Your task to perform on an android device: Open Wikipedia Image 0: 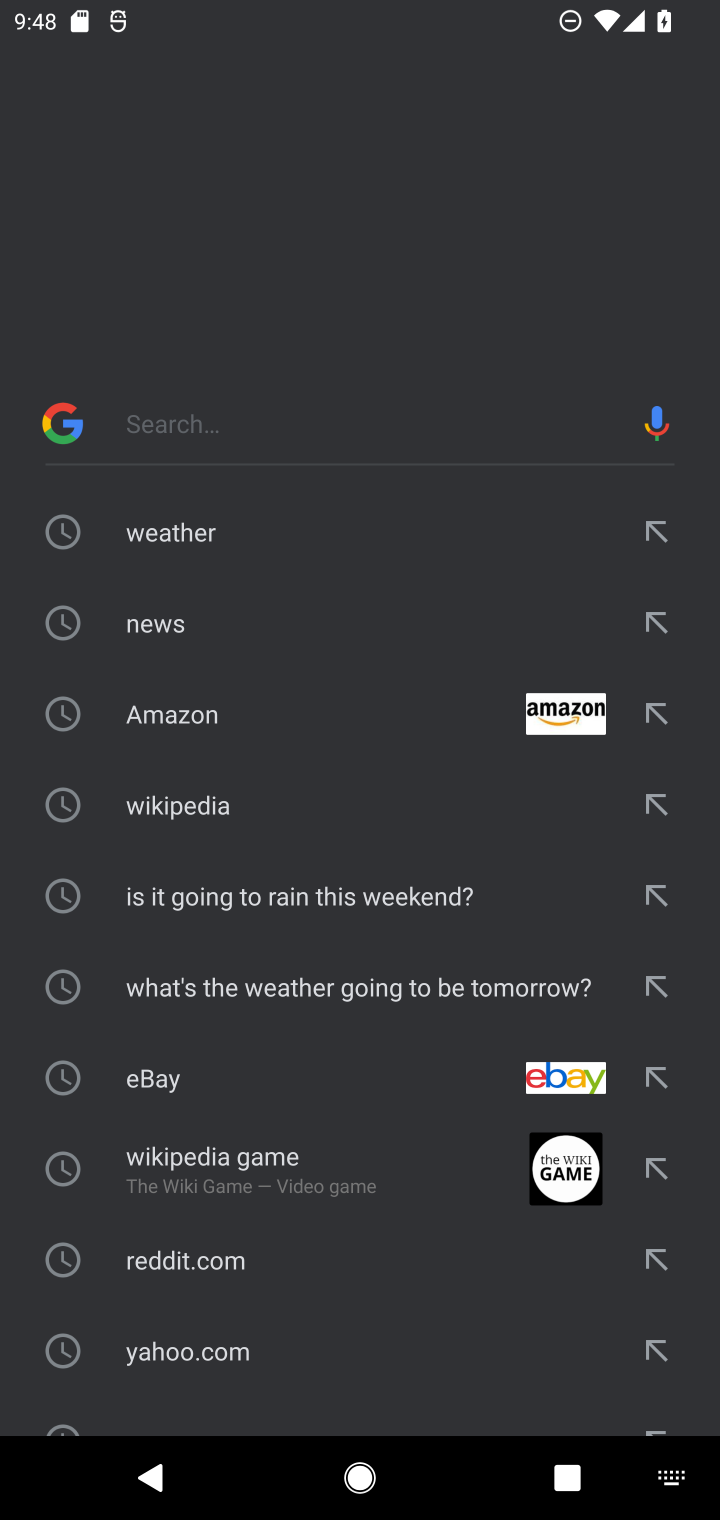
Step 0: click (325, 1171)
Your task to perform on an android device: Open Wikipedia Image 1: 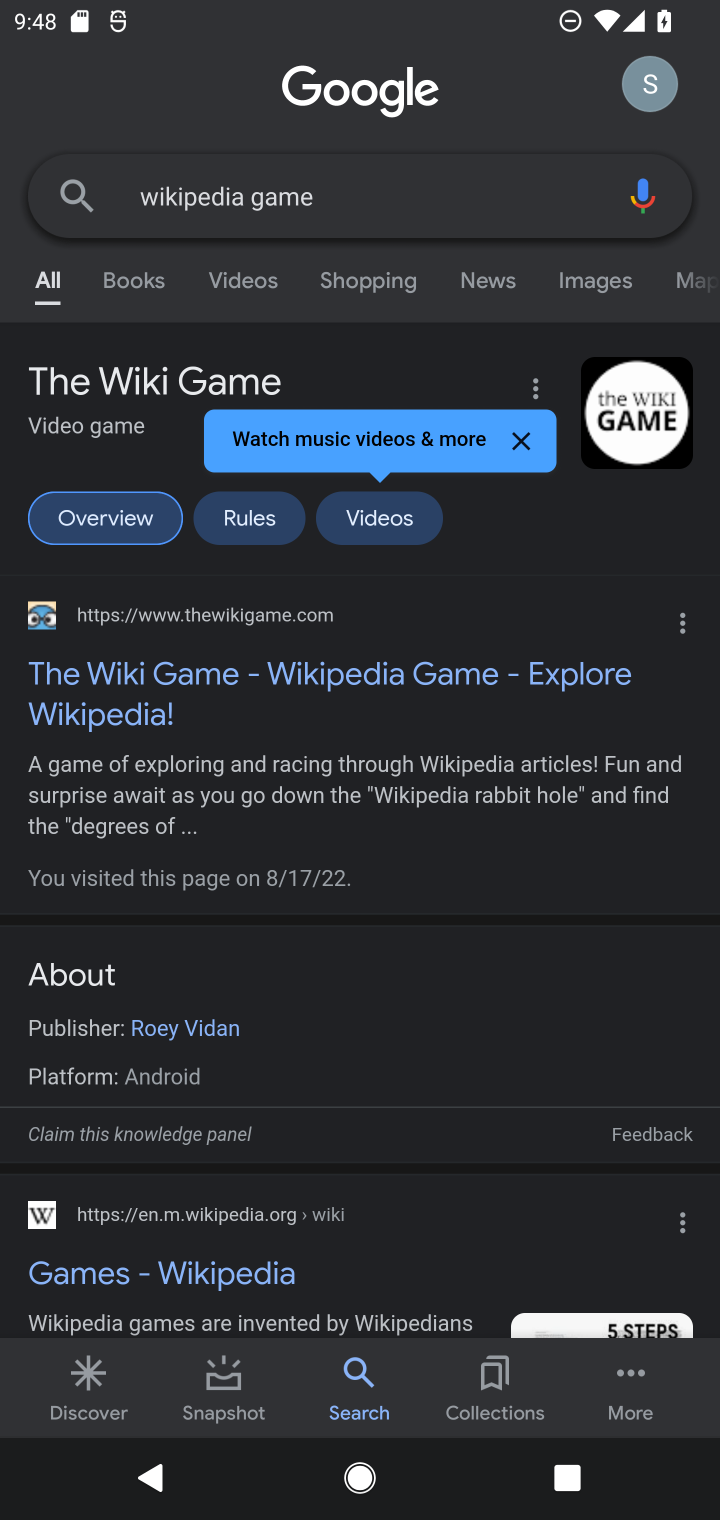
Step 1: click (218, 1300)
Your task to perform on an android device: Open Wikipedia Image 2: 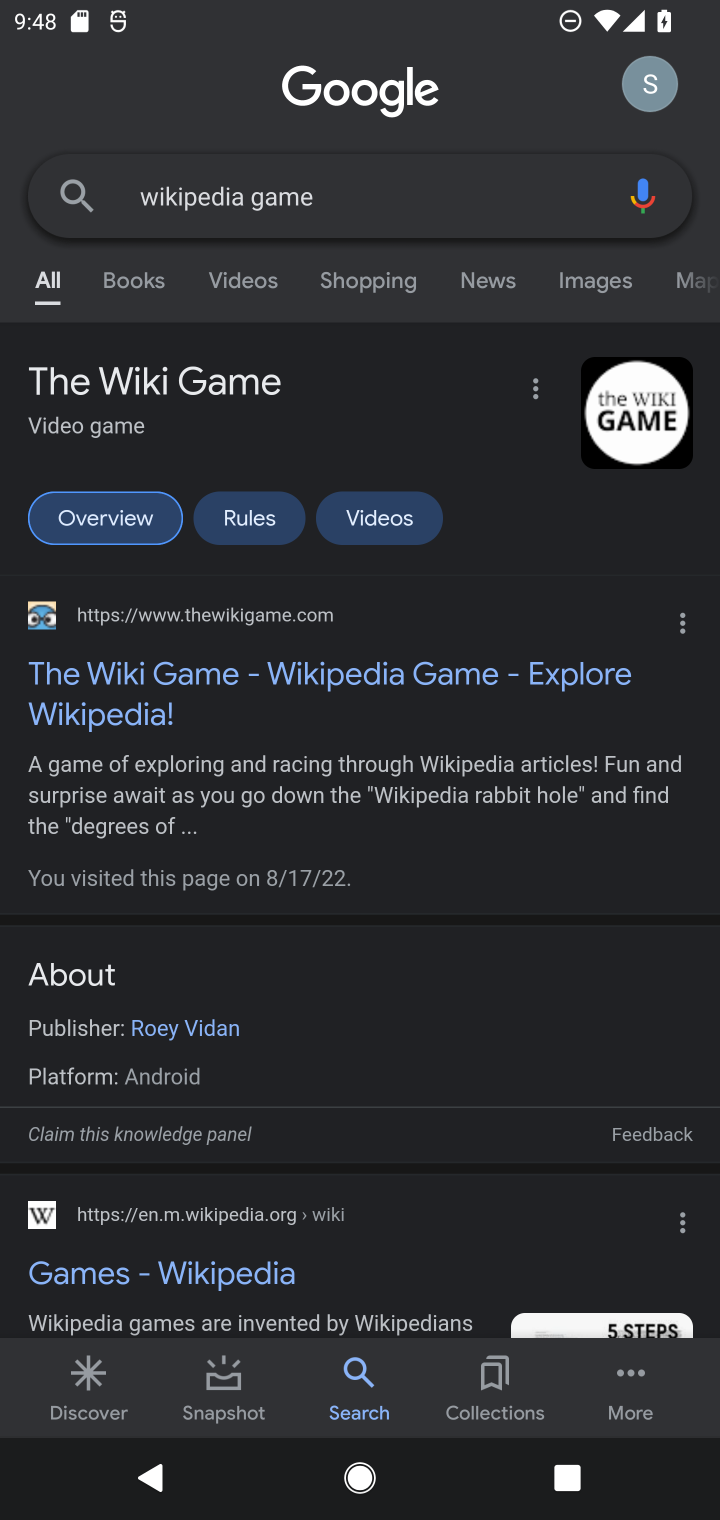
Step 2: task complete